Your task to perform on an android device: Open the Play Movies app and select the watchlist tab. Image 0: 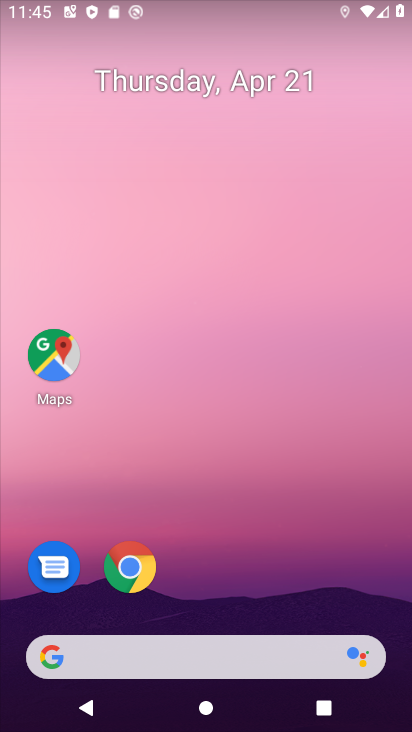
Step 0: drag from (179, 590) to (242, 10)
Your task to perform on an android device: Open the Play Movies app and select the watchlist tab. Image 1: 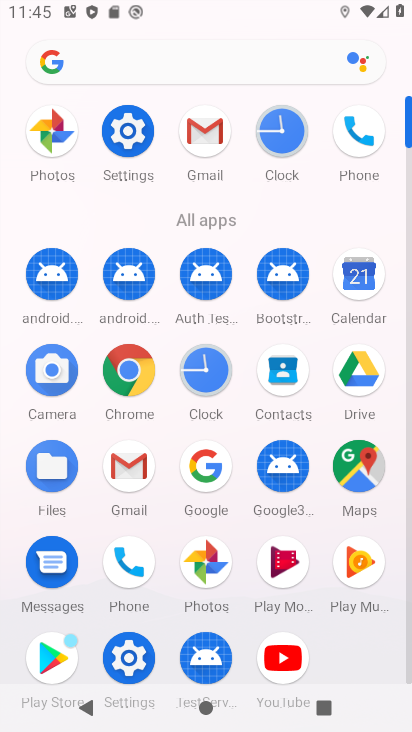
Step 1: click (281, 560)
Your task to perform on an android device: Open the Play Movies app and select the watchlist tab. Image 2: 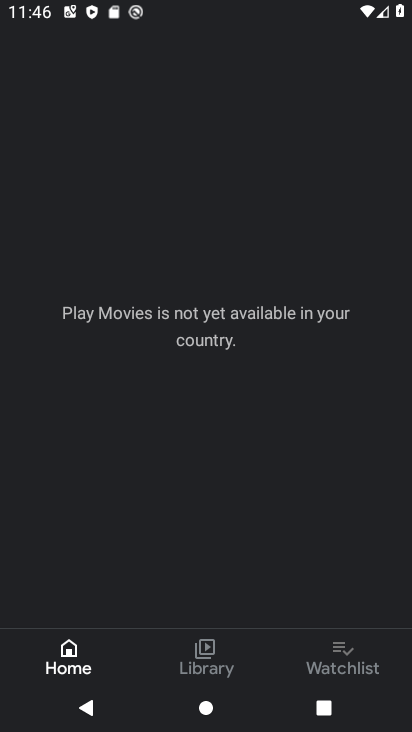
Step 2: click (340, 668)
Your task to perform on an android device: Open the Play Movies app and select the watchlist tab. Image 3: 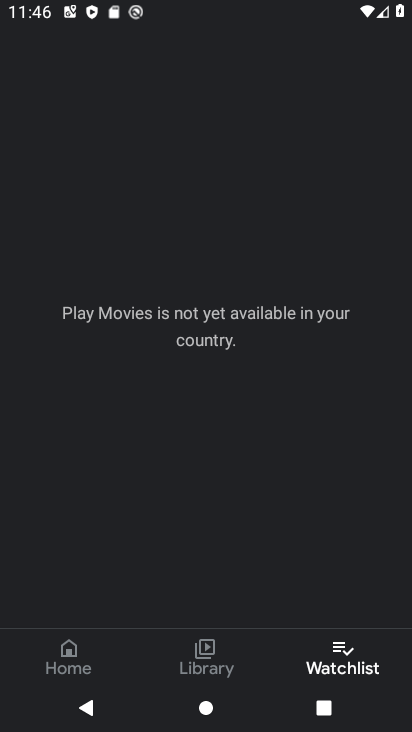
Step 3: task complete